Your task to perform on an android device: turn notification dots on Image 0: 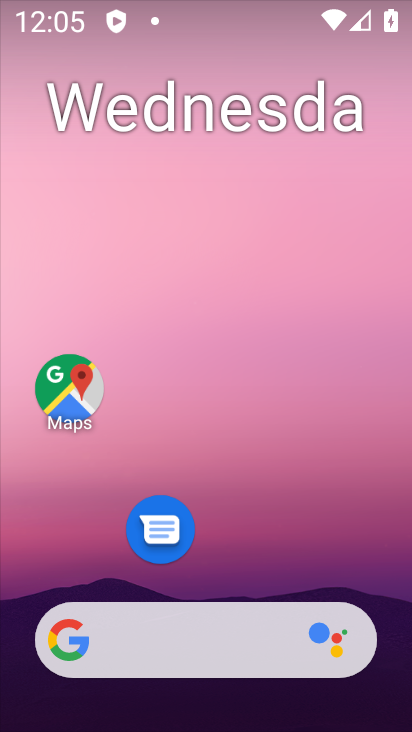
Step 0: drag from (230, 592) to (67, 9)
Your task to perform on an android device: turn notification dots on Image 1: 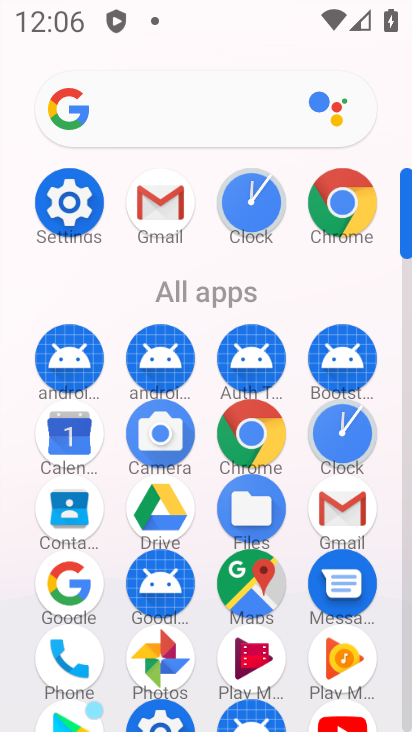
Step 1: click (70, 200)
Your task to perform on an android device: turn notification dots on Image 2: 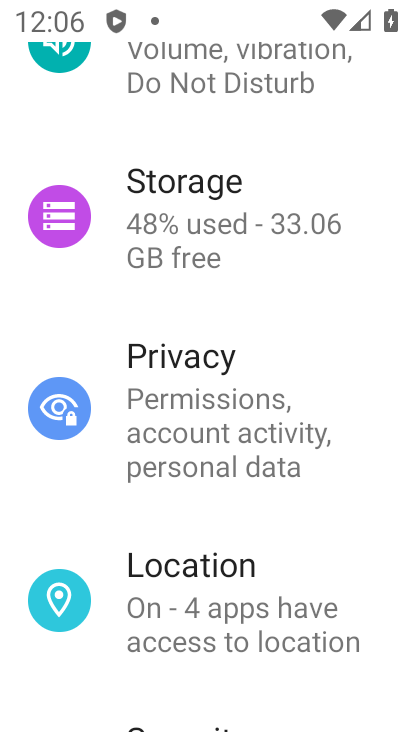
Step 2: drag from (197, 265) to (208, 673)
Your task to perform on an android device: turn notification dots on Image 3: 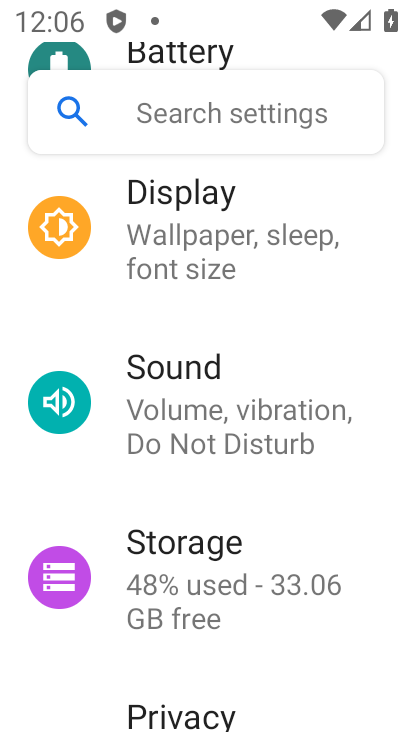
Step 3: drag from (214, 208) to (201, 641)
Your task to perform on an android device: turn notification dots on Image 4: 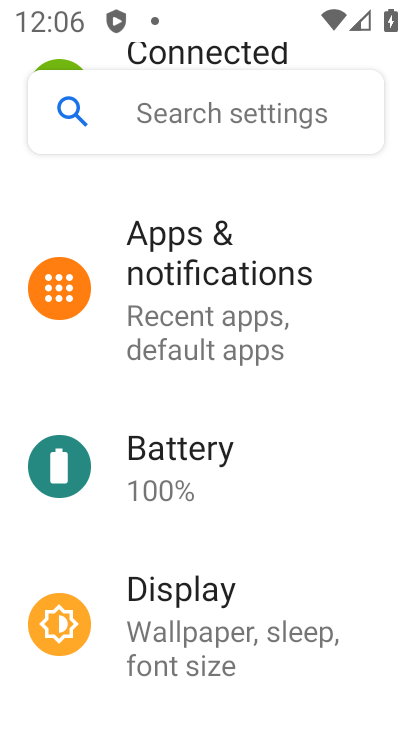
Step 4: click (293, 300)
Your task to perform on an android device: turn notification dots on Image 5: 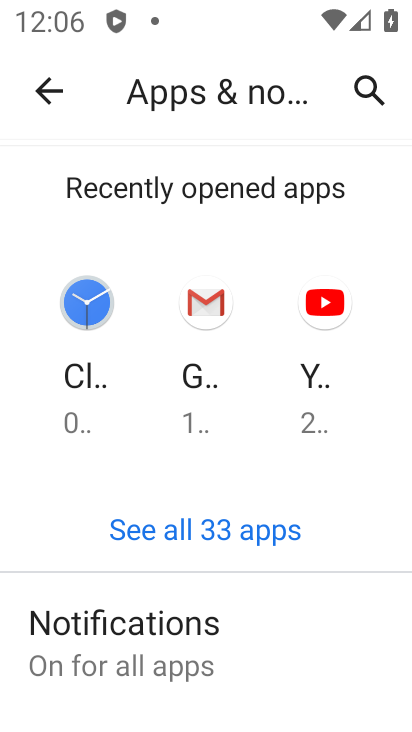
Step 5: drag from (234, 629) to (232, 219)
Your task to perform on an android device: turn notification dots on Image 6: 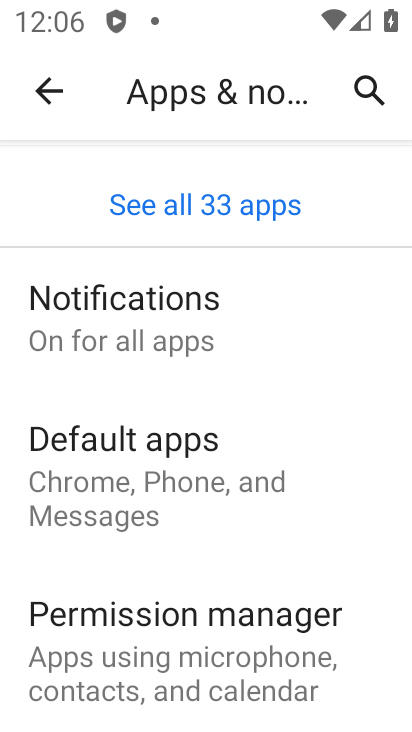
Step 6: click (196, 349)
Your task to perform on an android device: turn notification dots on Image 7: 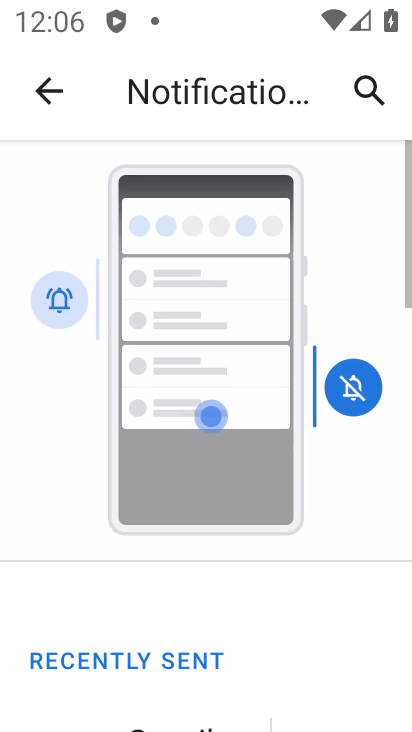
Step 7: drag from (245, 632) to (258, 75)
Your task to perform on an android device: turn notification dots on Image 8: 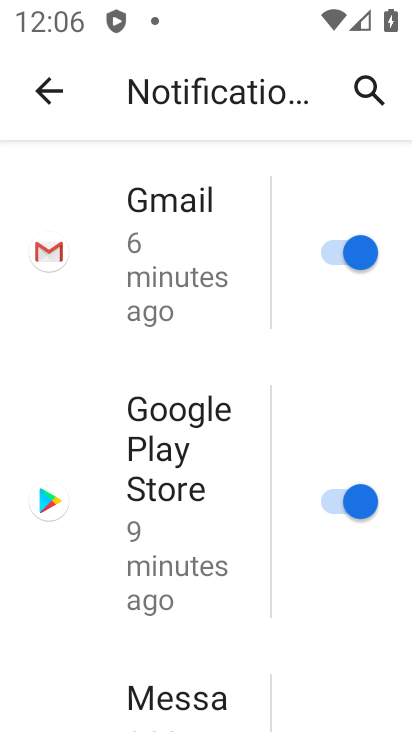
Step 8: drag from (187, 707) to (279, 4)
Your task to perform on an android device: turn notification dots on Image 9: 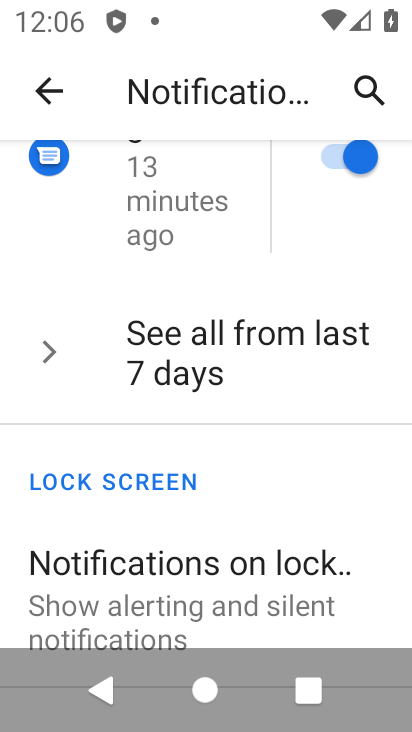
Step 9: drag from (275, 578) to (277, 150)
Your task to perform on an android device: turn notification dots on Image 10: 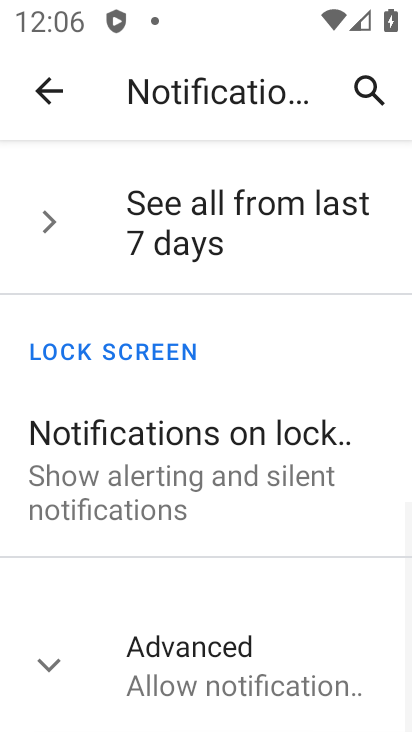
Step 10: click (199, 658)
Your task to perform on an android device: turn notification dots on Image 11: 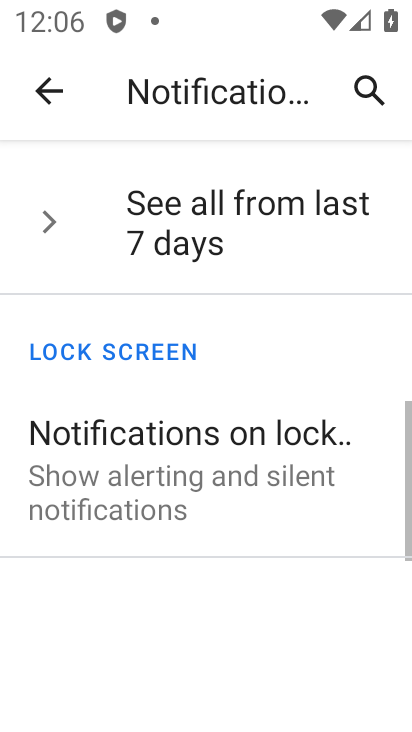
Step 11: task complete